Your task to perform on an android device: turn on the 12-hour format for clock Image 0: 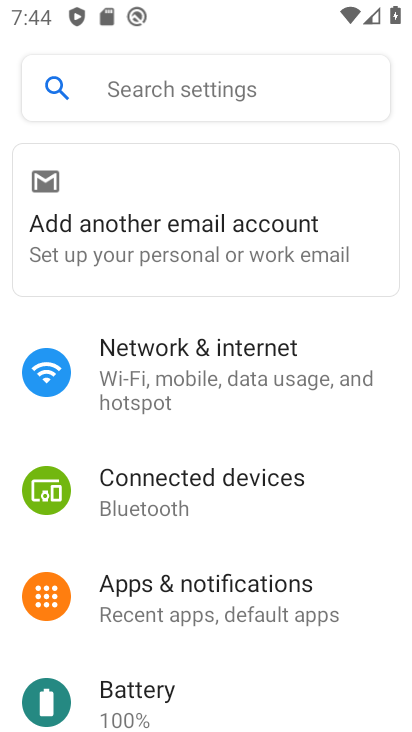
Step 0: press home button
Your task to perform on an android device: turn on the 12-hour format for clock Image 1: 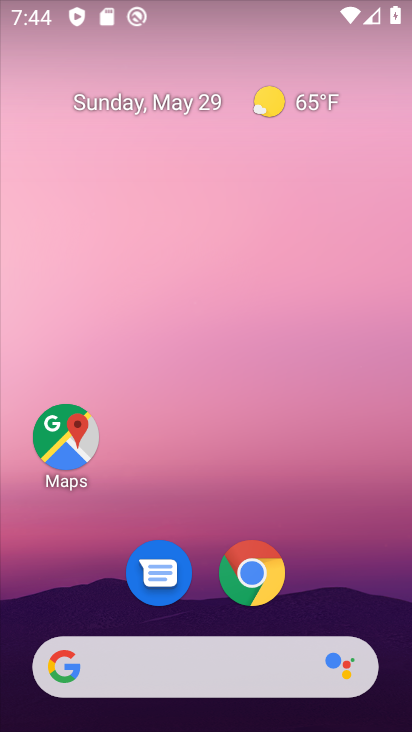
Step 1: drag from (201, 618) to (195, 259)
Your task to perform on an android device: turn on the 12-hour format for clock Image 2: 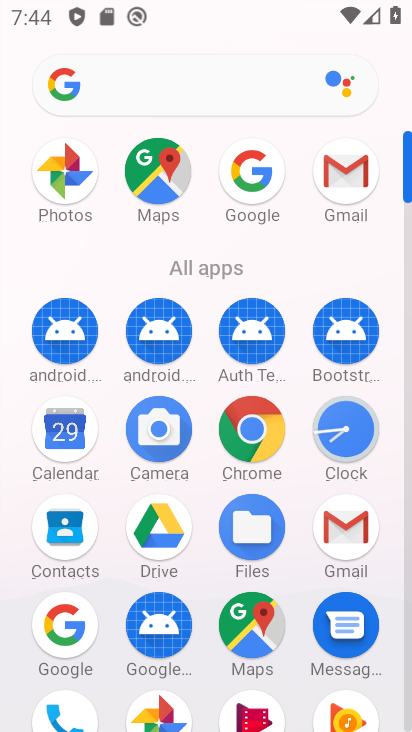
Step 2: click (336, 425)
Your task to perform on an android device: turn on the 12-hour format for clock Image 3: 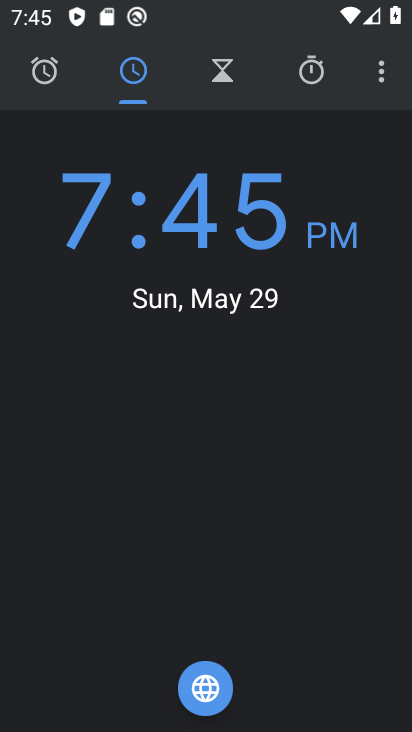
Step 3: click (384, 71)
Your task to perform on an android device: turn on the 12-hour format for clock Image 4: 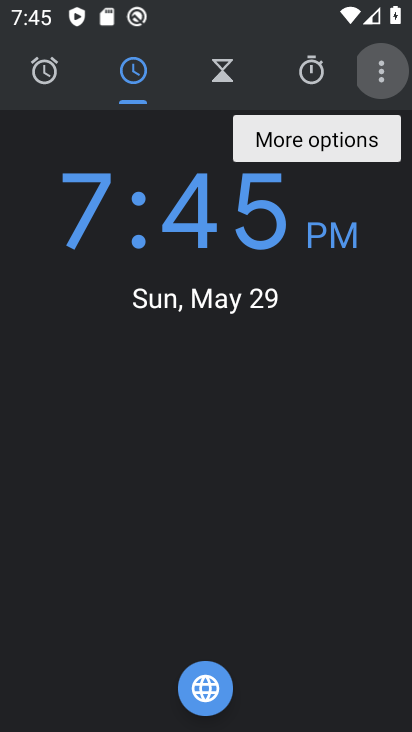
Step 4: click (376, 86)
Your task to perform on an android device: turn on the 12-hour format for clock Image 5: 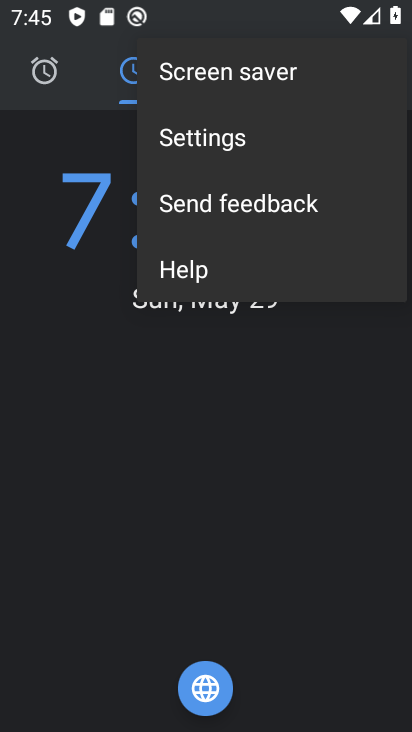
Step 5: click (267, 147)
Your task to perform on an android device: turn on the 12-hour format for clock Image 6: 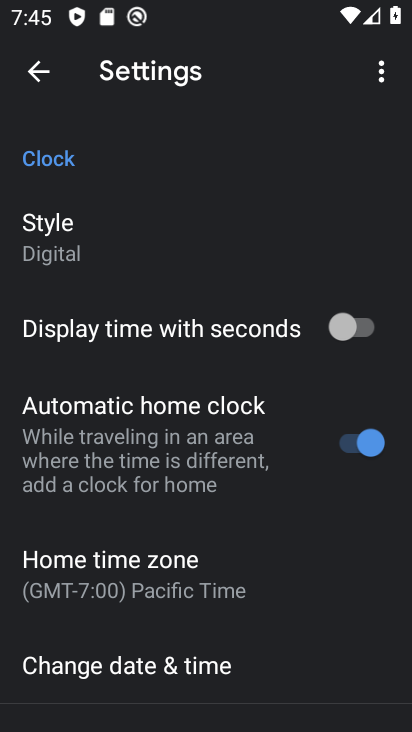
Step 6: drag from (172, 651) to (183, 357)
Your task to perform on an android device: turn on the 12-hour format for clock Image 7: 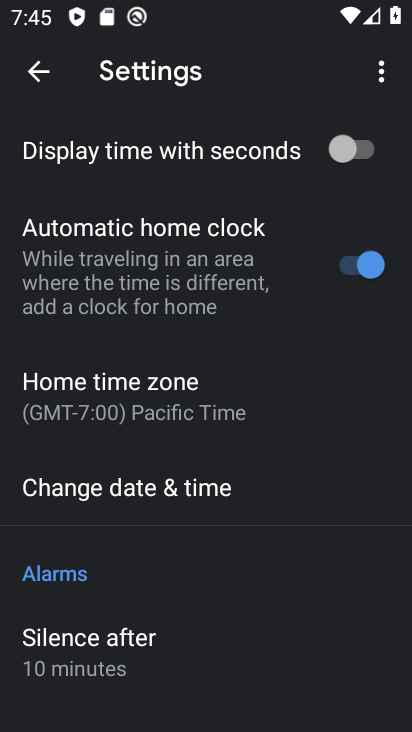
Step 7: click (180, 475)
Your task to perform on an android device: turn on the 12-hour format for clock Image 8: 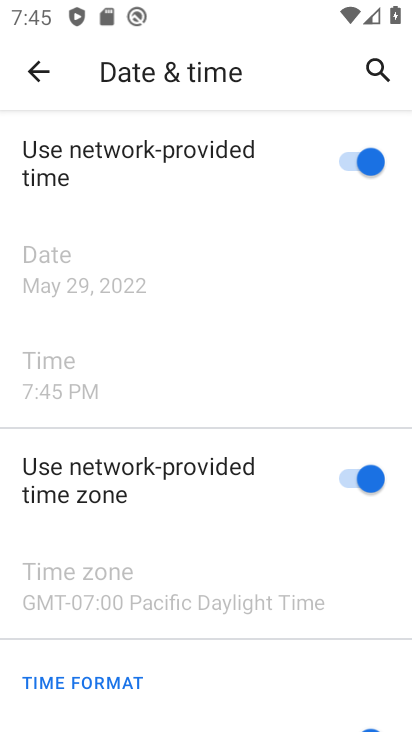
Step 8: task complete